Your task to perform on an android device: Turn on the flashlight Image 0: 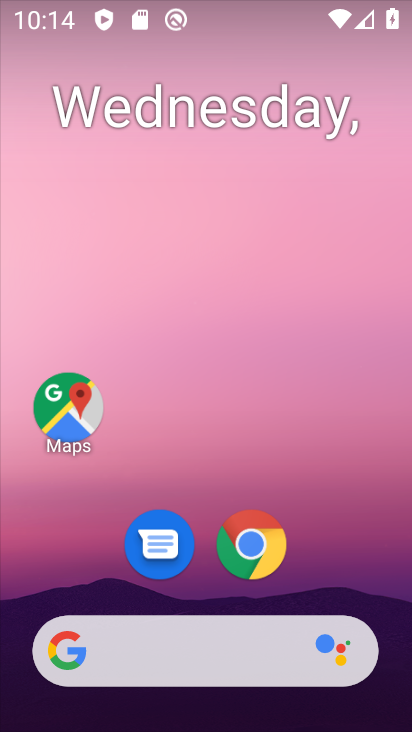
Step 0: drag from (276, 688) to (313, 206)
Your task to perform on an android device: Turn on the flashlight Image 1: 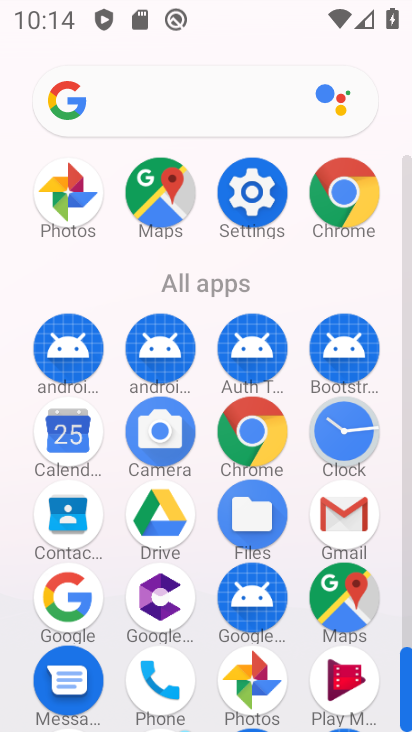
Step 1: click (236, 196)
Your task to perform on an android device: Turn on the flashlight Image 2: 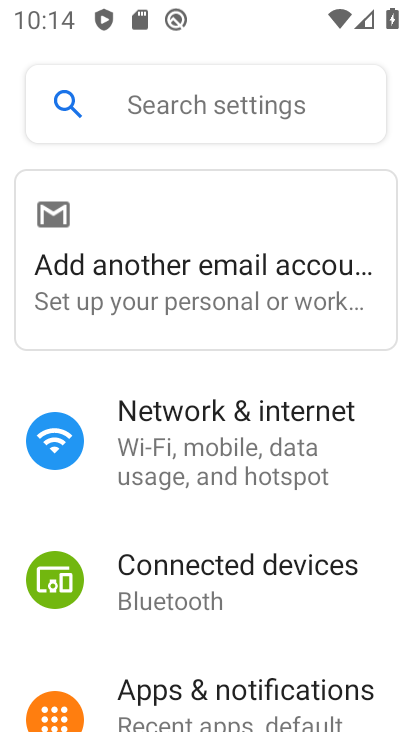
Step 2: click (125, 103)
Your task to perform on an android device: Turn on the flashlight Image 3: 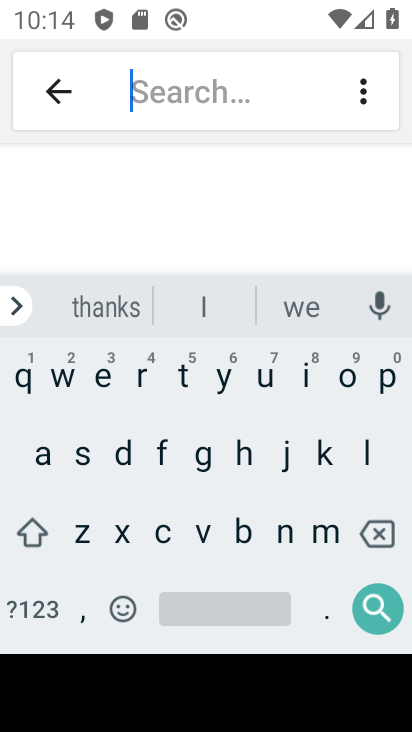
Step 3: click (141, 459)
Your task to perform on an android device: Turn on the flashlight Image 4: 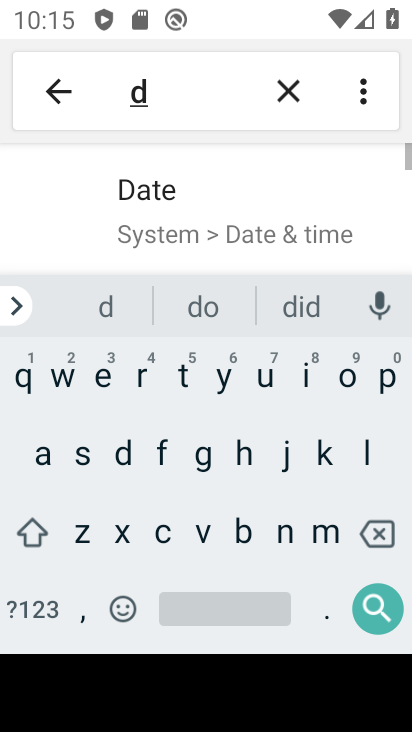
Step 4: click (376, 539)
Your task to perform on an android device: Turn on the flashlight Image 5: 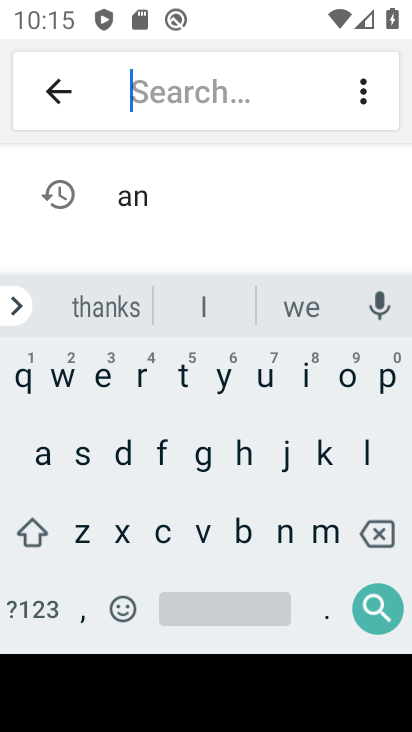
Step 5: click (166, 453)
Your task to perform on an android device: Turn on the flashlight Image 6: 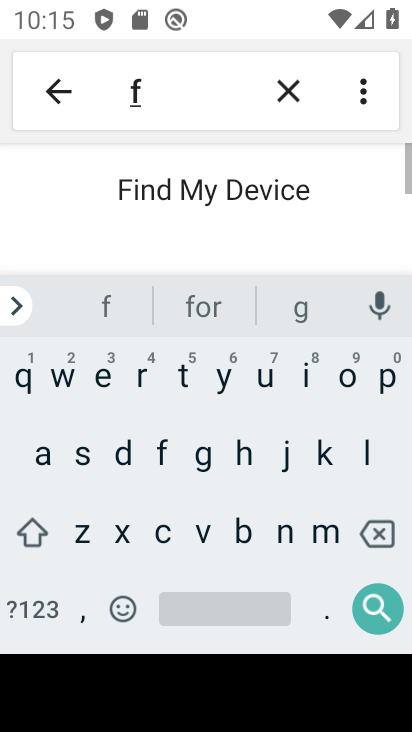
Step 6: click (360, 445)
Your task to perform on an android device: Turn on the flashlight Image 7: 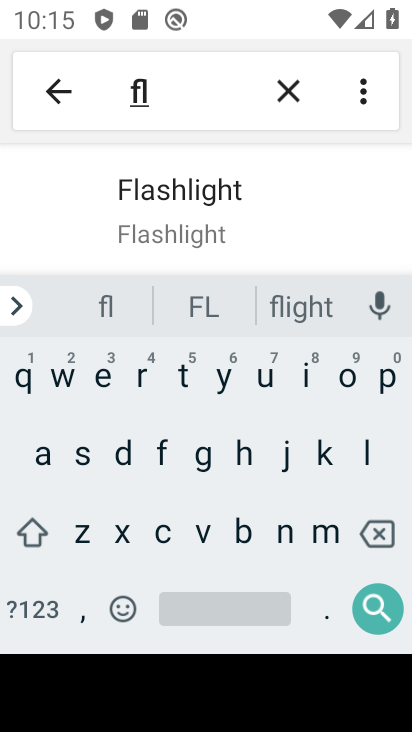
Step 7: click (210, 199)
Your task to perform on an android device: Turn on the flashlight Image 8: 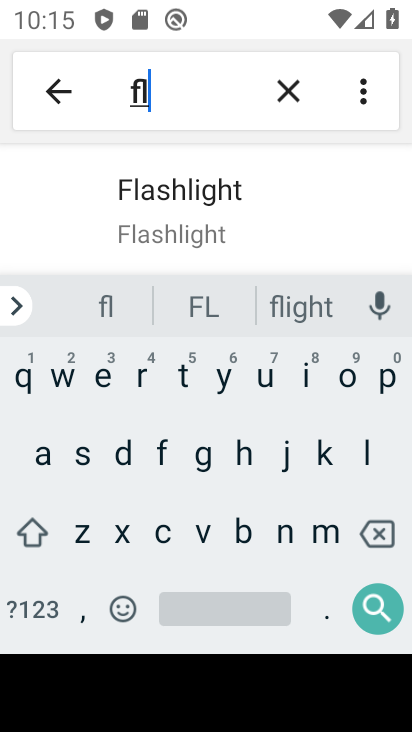
Step 8: task complete